Your task to perform on an android device: change notifications settings Image 0: 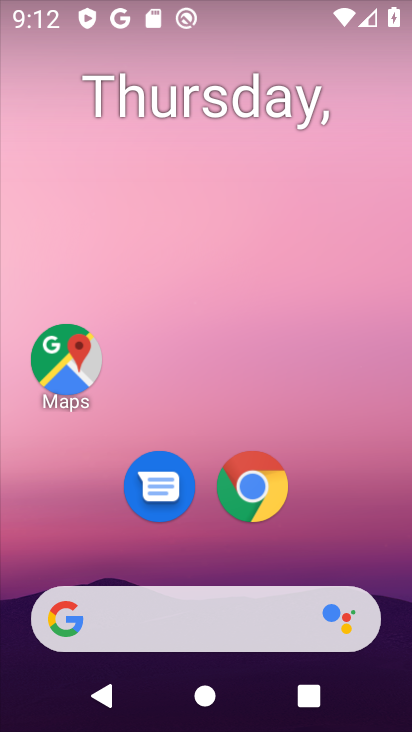
Step 0: drag from (331, 513) to (295, 0)
Your task to perform on an android device: change notifications settings Image 1: 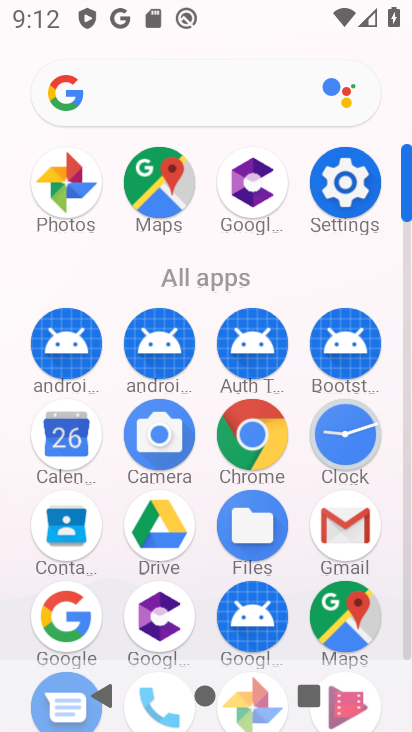
Step 1: click (351, 194)
Your task to perform on an android device: change notifications settings Image 2: 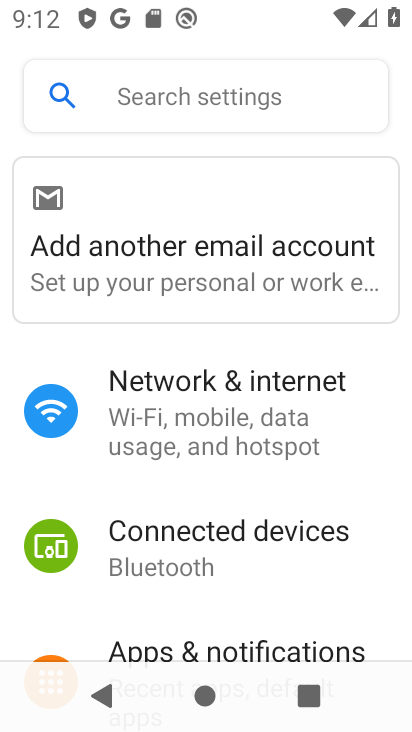
Step 2: click (245, 640)
Your task to perform on an android device: change notifications settings Image 3: 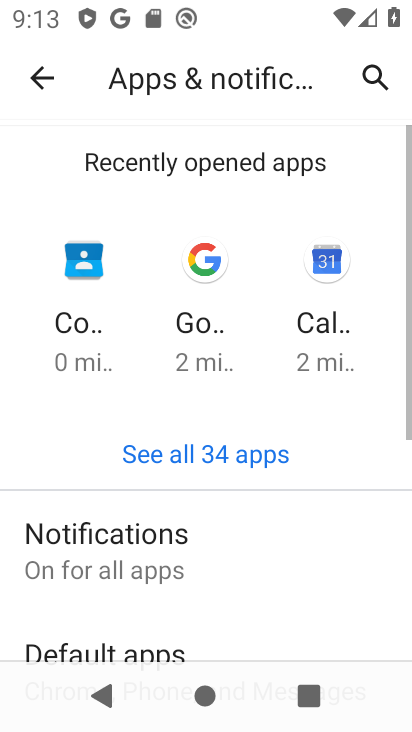
Step 3: click (168, 531)
Your task to perform on an android device: change notifications settings Image 4: 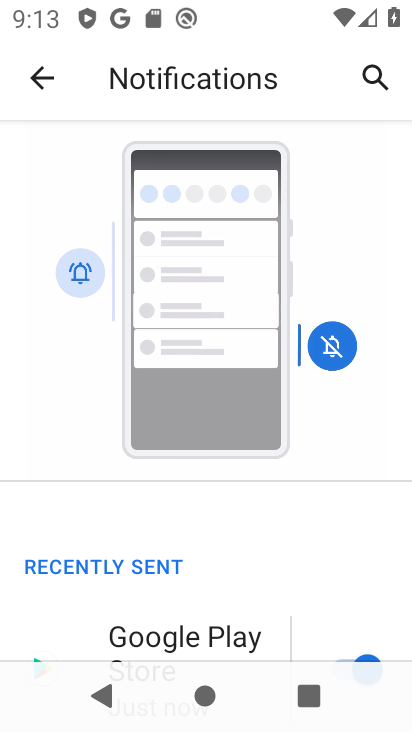
Step 4: task complete